Your task to perform on an android device: turn off javascript in the chrome app Image 0: 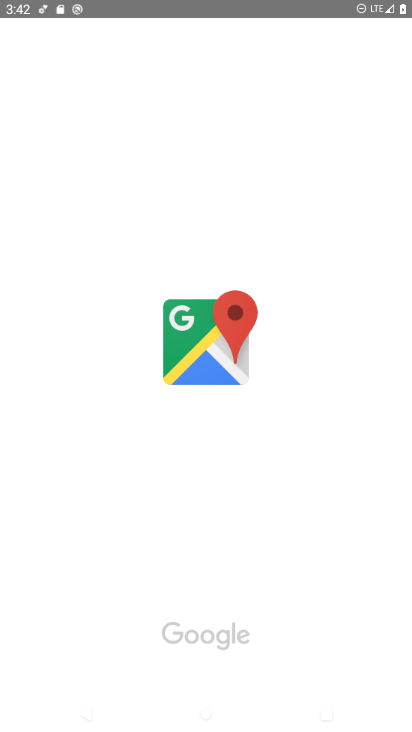
Step 0: drag from (271, 686) to (358, 243)
Your task to perform on an android device: turn off javascript in the chrome app Image 1: 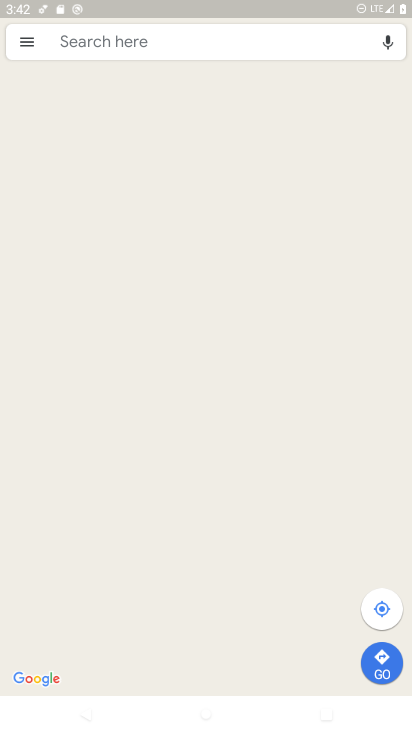
Step 1: press home button
Your task to perform on an android device: turn off javascript in the chrome app Image 2: 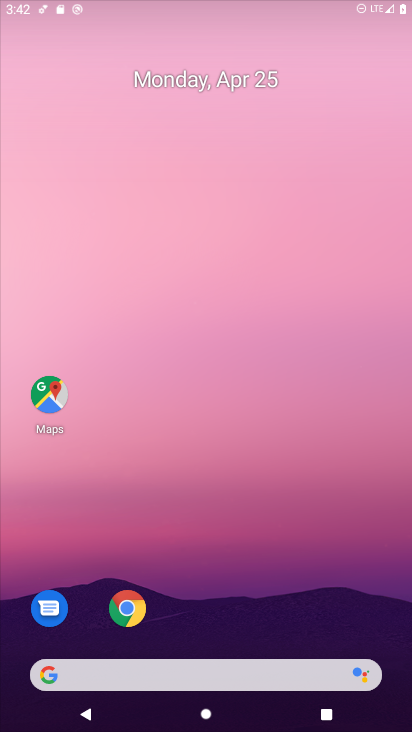
Step 2: drag from (291, 663) to (223, 165)
Your task to perform on an android device: turn off javascript in the chrome app Image 3: 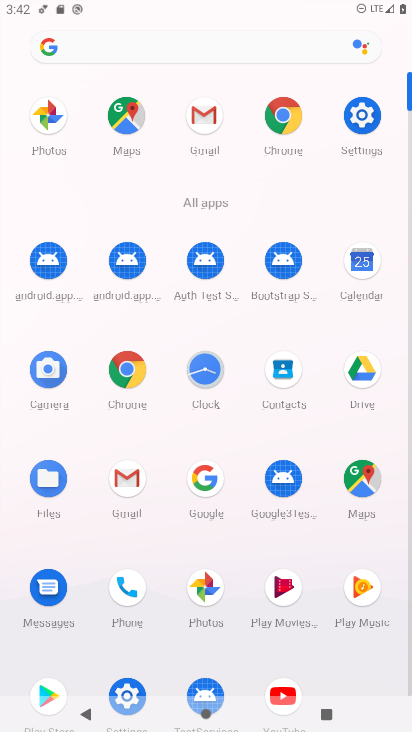
Step 3: click (129, 369)
Your task to perform on an android device: turn off javascript in the chrome app Image 4: 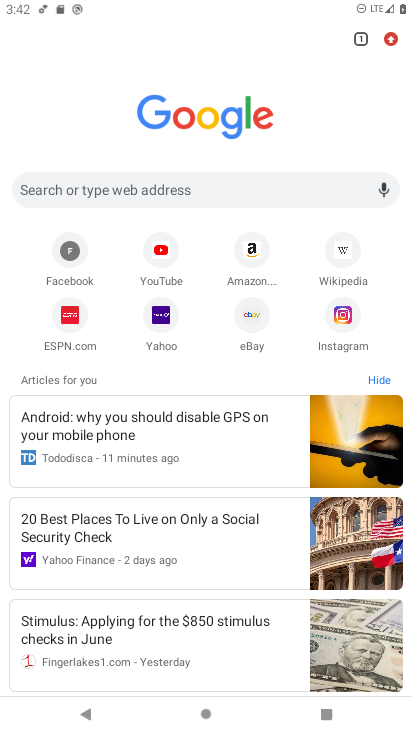
Step 4: click (397, 43)
Your task to perform on an android device: turn off javascript in the chrome app Image 5: 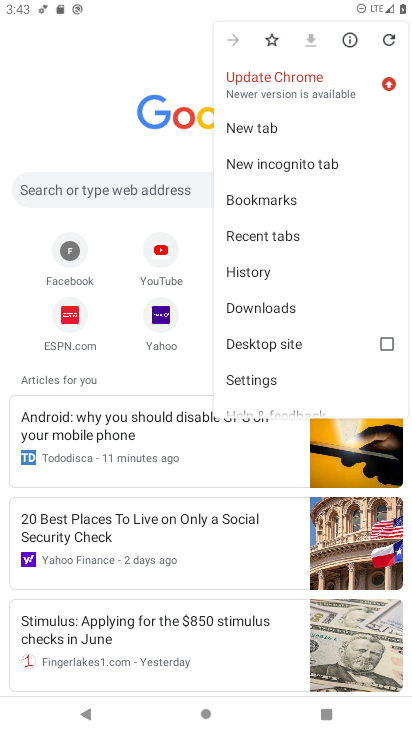
Step 5: click (253, 385)
Your task to perform on an android device: turn off javascript in the chrome app Image 6: 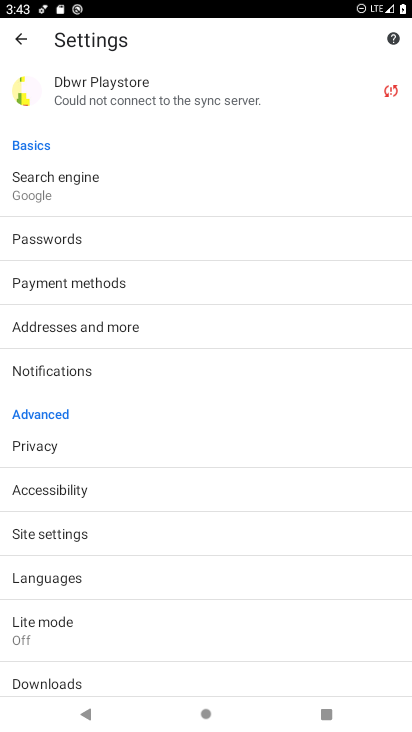
Step 6: click (49, 537)
Your task to perform on an android device: turn off javascript in the chrome app Image 7: 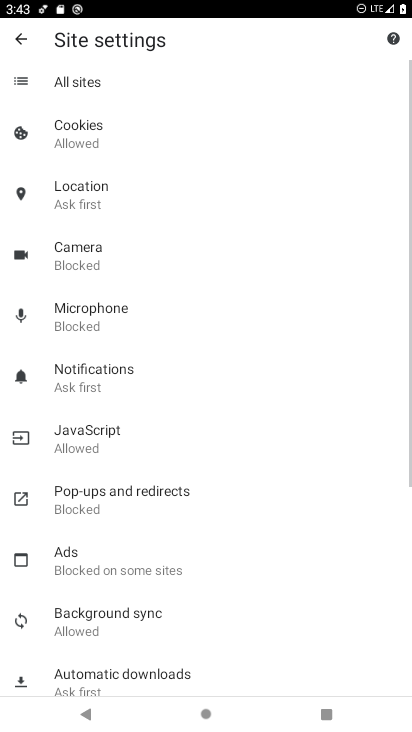
Step 7: click (130, 435)
Your task to perform on an android device: turn off javascript in the chrome app Image 8: 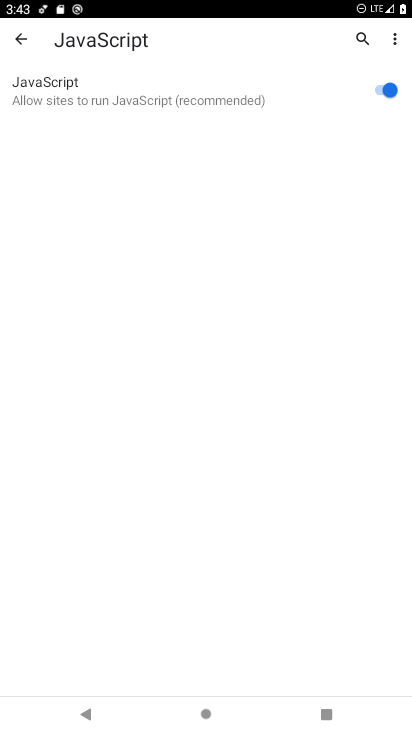
Step 8: click (199, 79)
Your task to perform on an android device: turn off javascript in the chrome app Image 9: 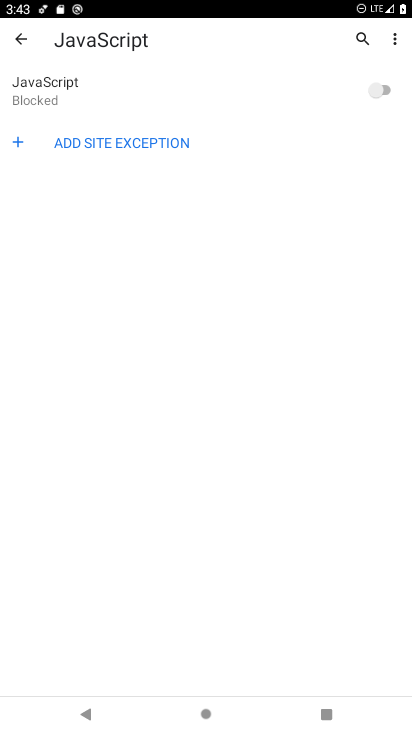
Step 9: task complete